Your task to perform on an android device: Open Yahoo.com Image 0: 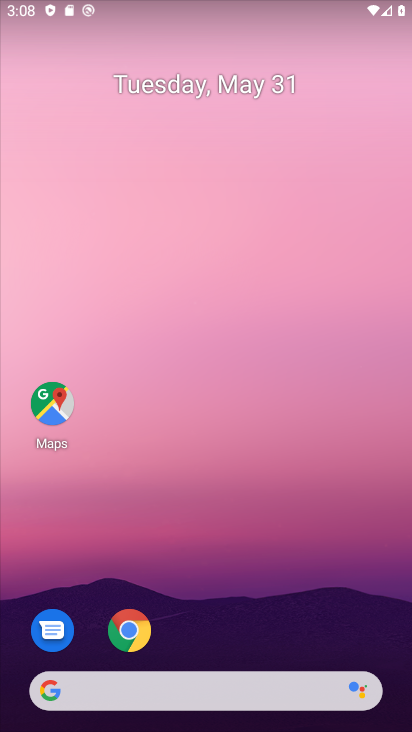
Step 0: drag from (259, 690) to (275, 20)
Your task to perform on an android device: Open Yahoo.com Image 1: 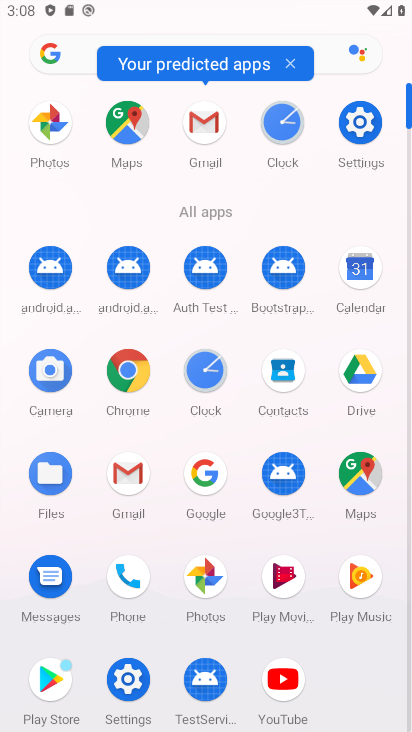
Step 1: click (132, 373)
Your task to perform on an android device: Open Yahoo.com Image 2: 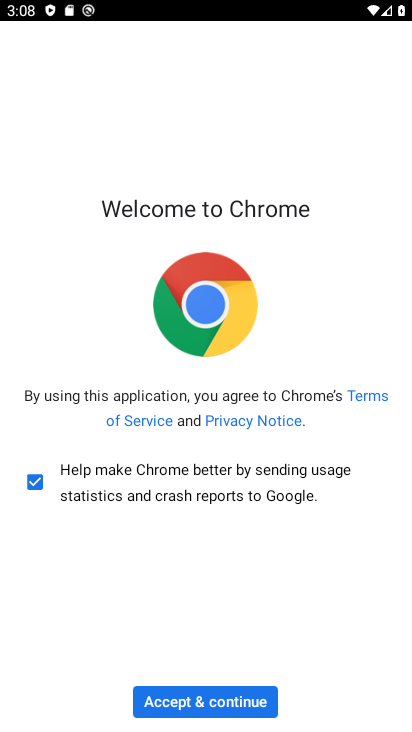
Step 2: click (202, 708)
Your task to perform on an android device: Open Yahoo.com Image 3: 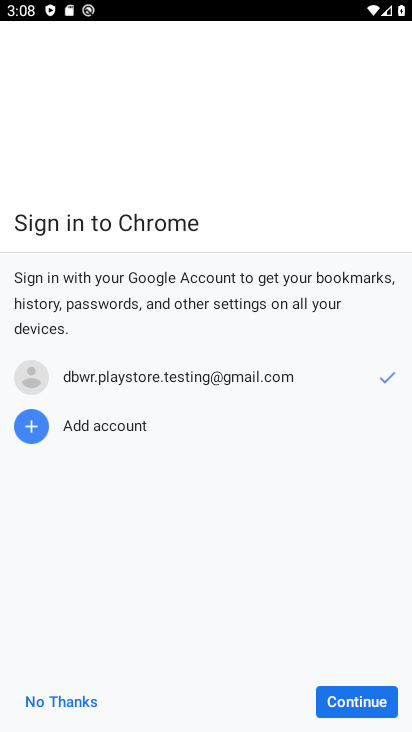
Step 3: click (83, 704)
Your task to perform on an android device: Open Yahoo.com Image 4: 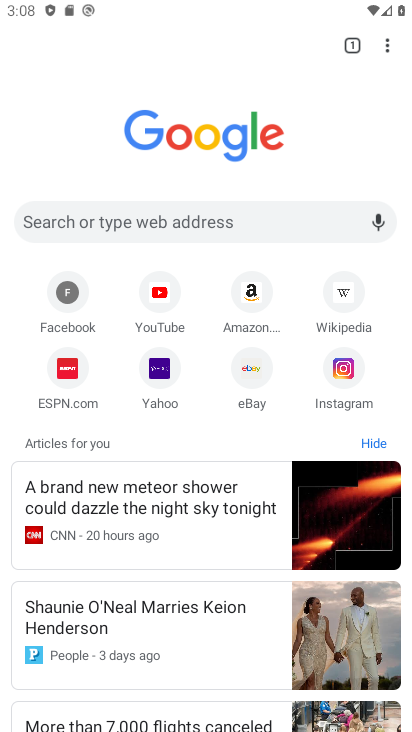
Step 4: click (158, 382)
Your task to perform on an android device: Open Yahoo.com Image 5: 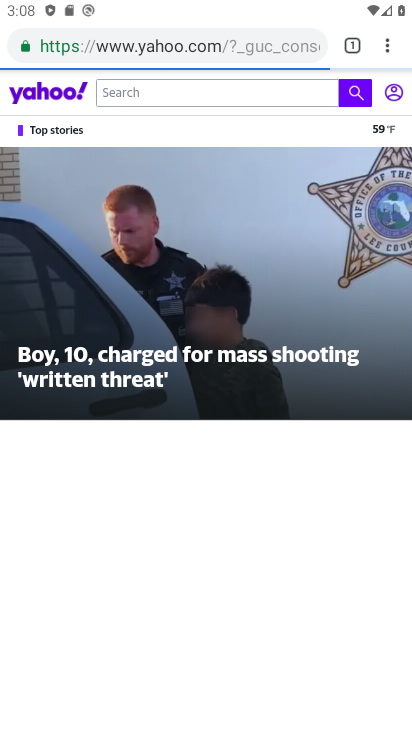
Step 5: task complete